Your task to perform on an android device: Go to CNN.com Image 0: 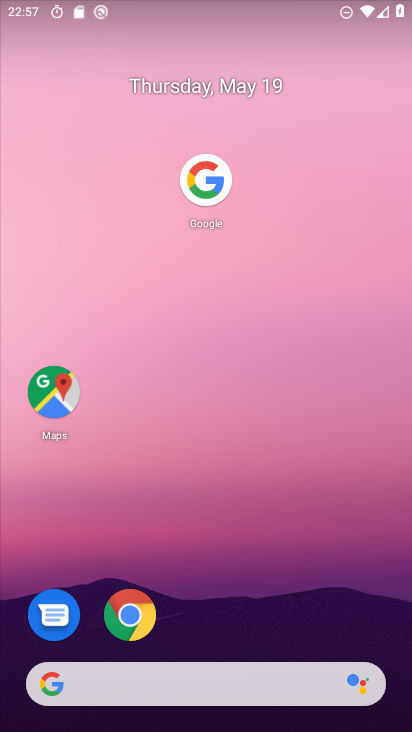
Step 0: click (239, 590)
Your task to perform on an android device: Go to CNN.com Image 1: 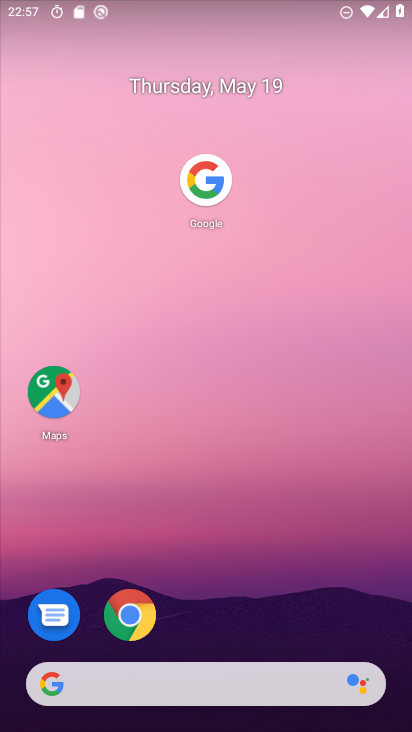
Step 1: click (206, 191)
Your task to perform on an android device: Go to CNN.com Image 2: 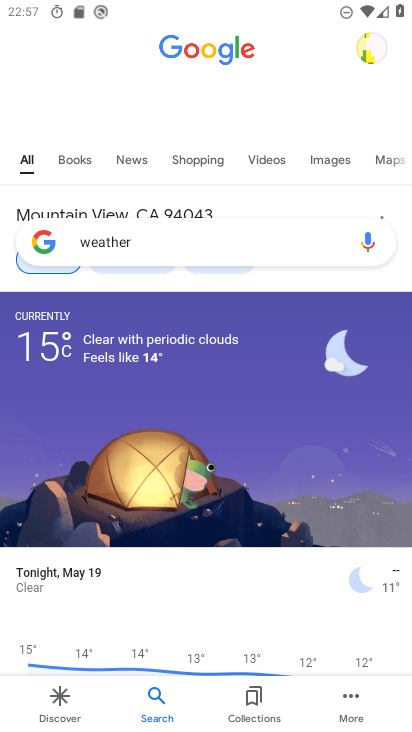
Step 2: click (172, 242)
Your task to perform on an android device: Go to CNN.com Image 3: 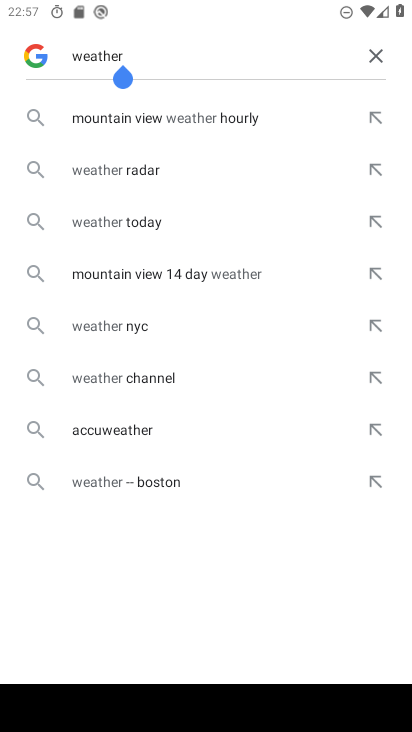
Step 3: click (377, 49)
Your task to perform on an android device: Go to CNN.com Image 4: 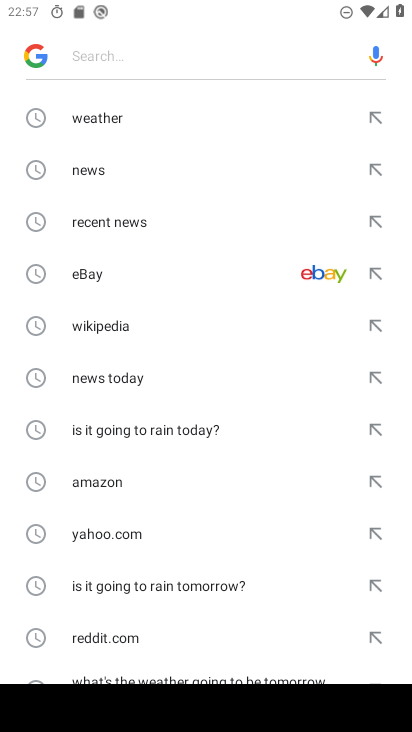
Step 4: drag from (172, 492) to (197, 264)
Your task to perform on an android device: Go to CNN.com Image 5: 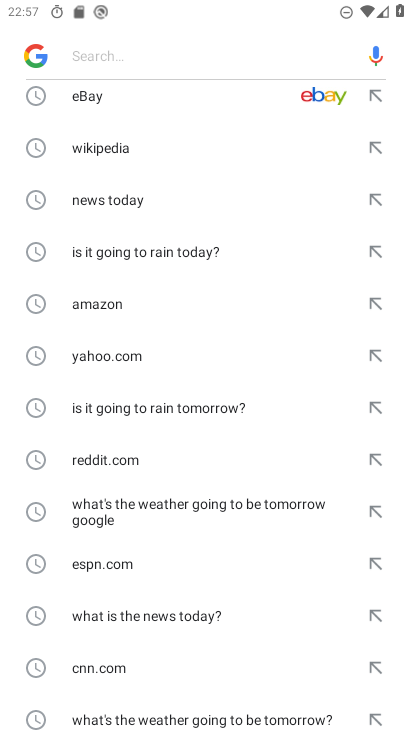
Step 5: click (126, 663)
Your task to perform on an android device: Go to CNN.com Image 6: 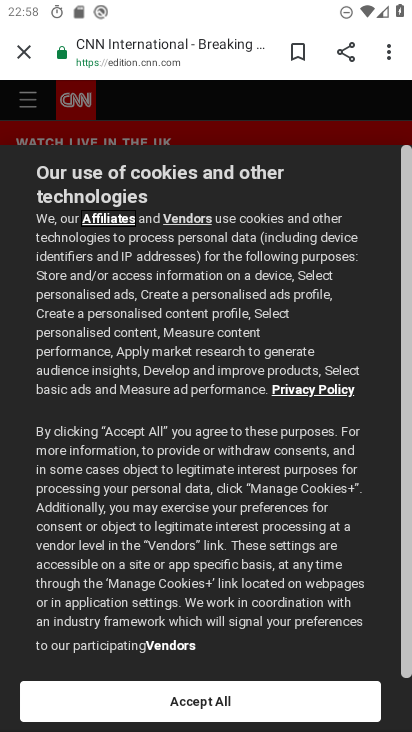
Step 6: task complete